Your task to perform on an android device: Open the calendar and show me this week's events? Image 0: 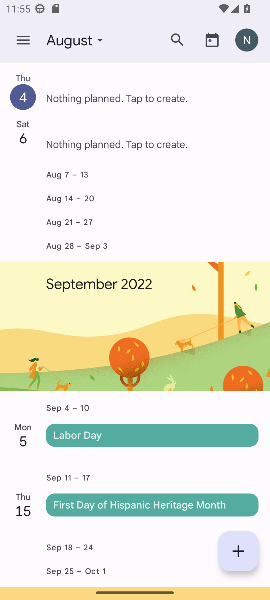
Step 0: click (98, 34)
Your task to perform on an android device: Open the calendar and show me this week's events? Image 1: 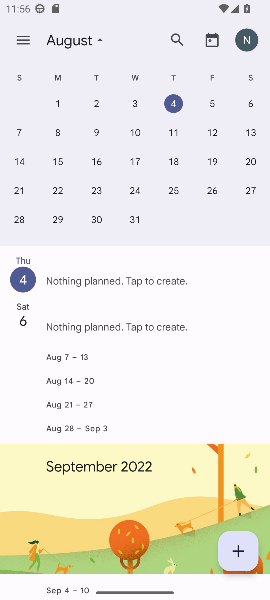
Step 1: click (200, 101)
Your task to perform on an android device: Open the calendar and show me this week's events? Image 2: 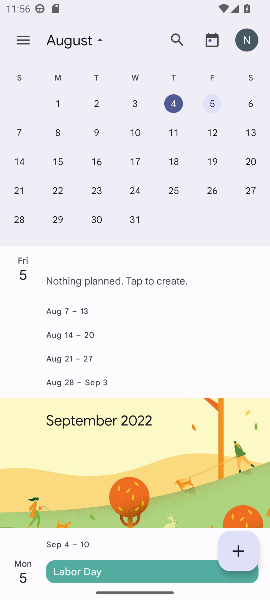
Step 2: click (239, 104)
Your task to perform on an android device: Open the calendar and show me this week's events? Image 3: 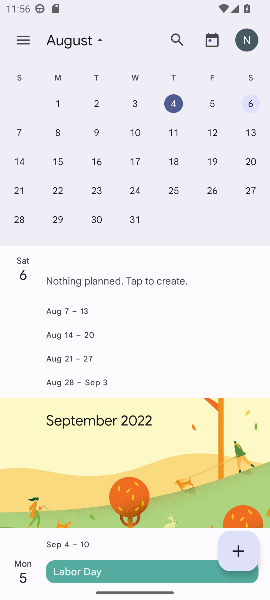
Step 3: task complete